Your task to perform on an android device: empty trash in the gmail app Image 0: 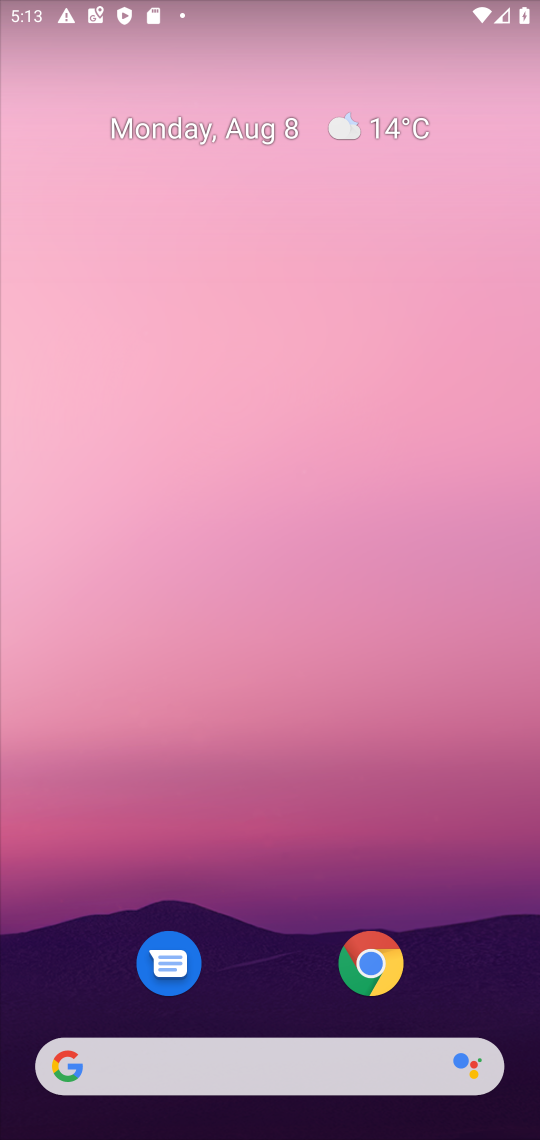
Step 0: drag from (273, 870) to (317, 1)
Your task to perform on an android device: empty trash in the gmail app Image 1: 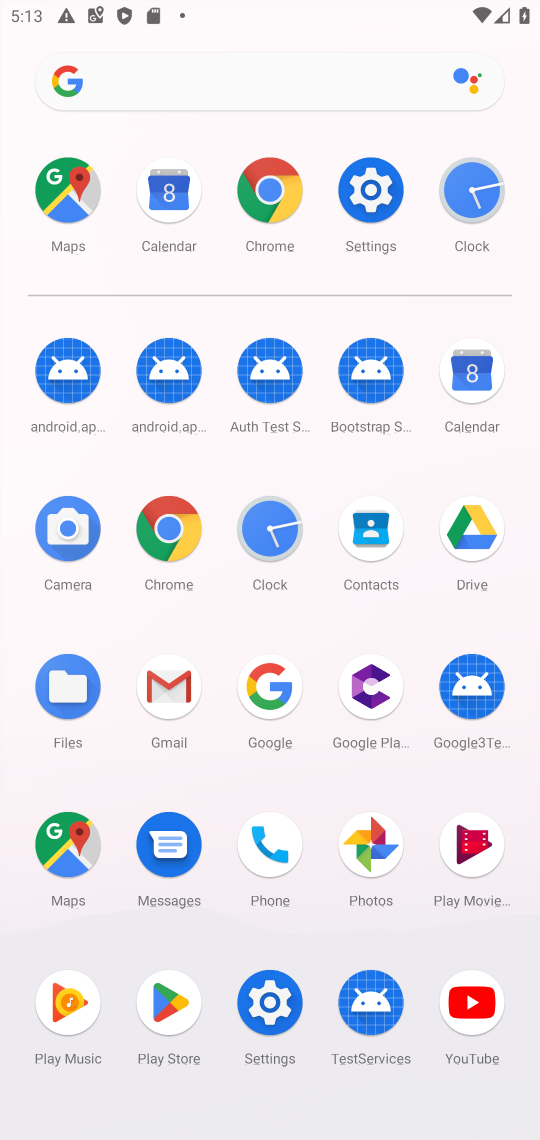
Step 1: click (169, 671)
Your task to perform on an android device: empty trash in the gmail app Image 2: 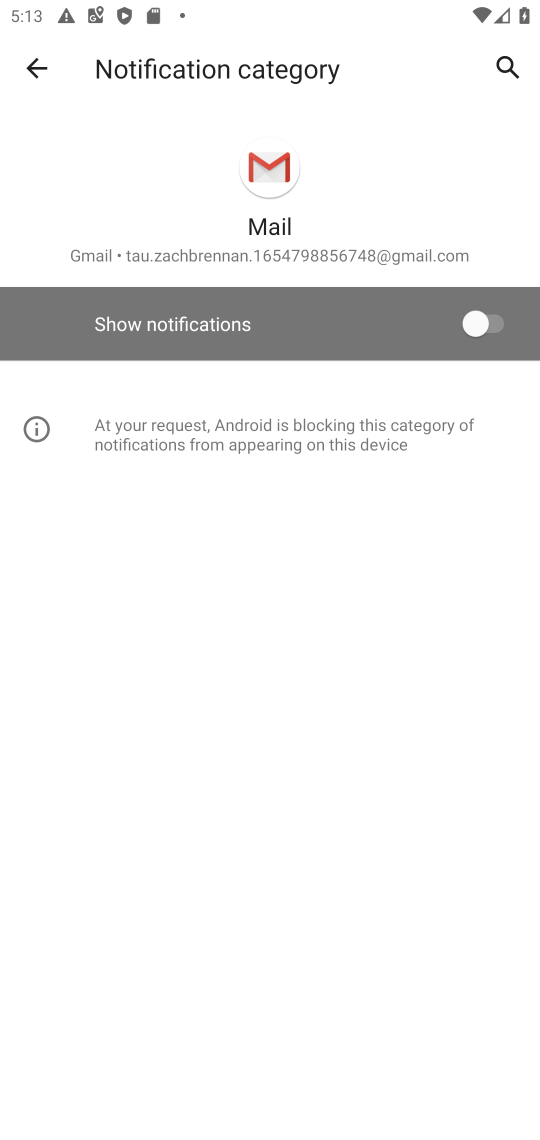
Step 2: click (32, 73)
Your task to perform on an android device: empty trash in the gmail app Image 3: 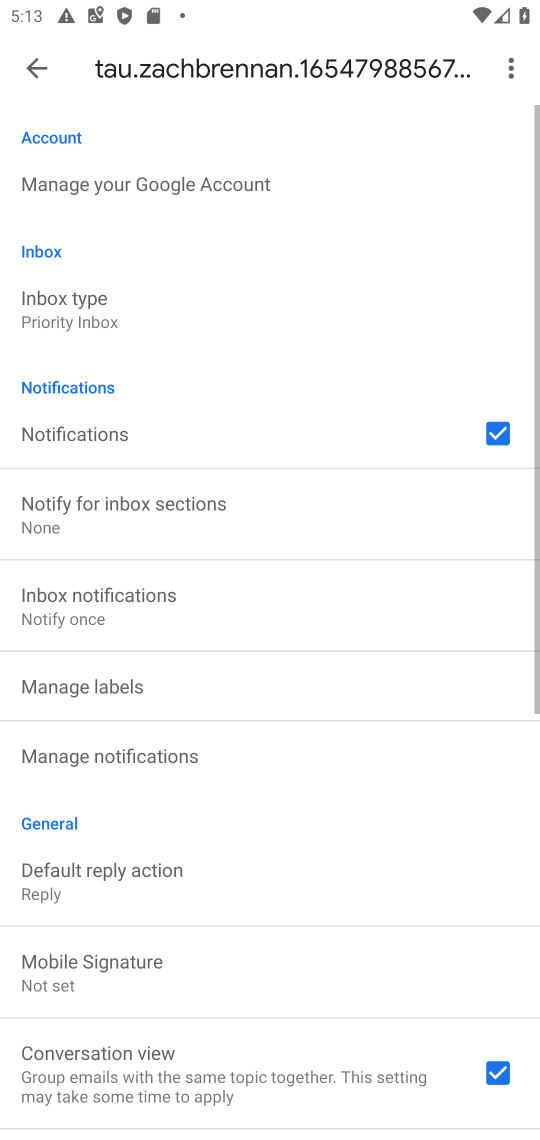
Step 3: click (33, 73)
Your task to perform on an android device: empty trash in the gmail app Image 4: 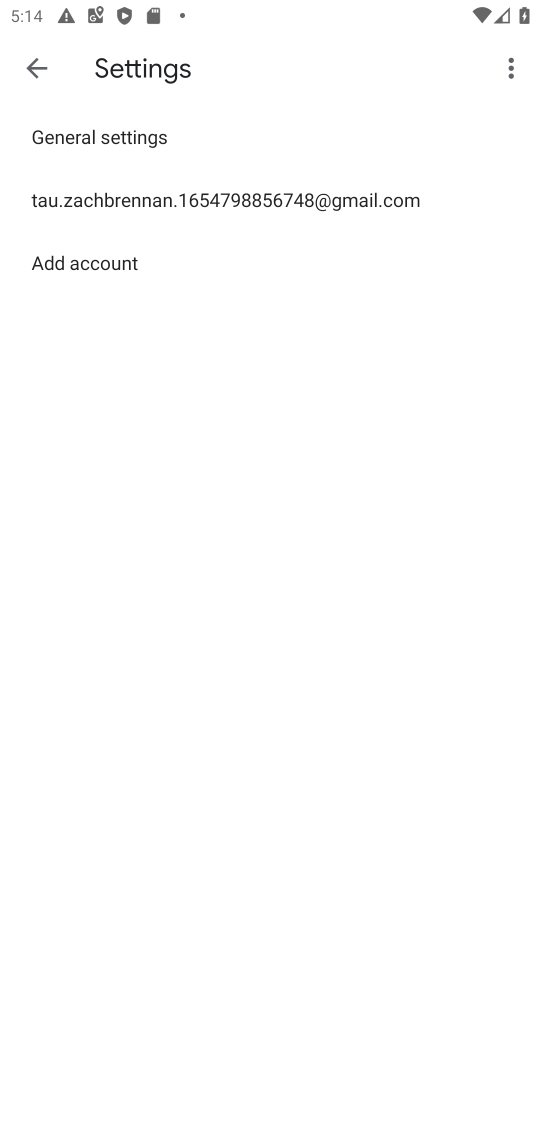
Step 4: click (33, 73)
Your task to perform on an android device: empty trash in the gmail app Image 5: 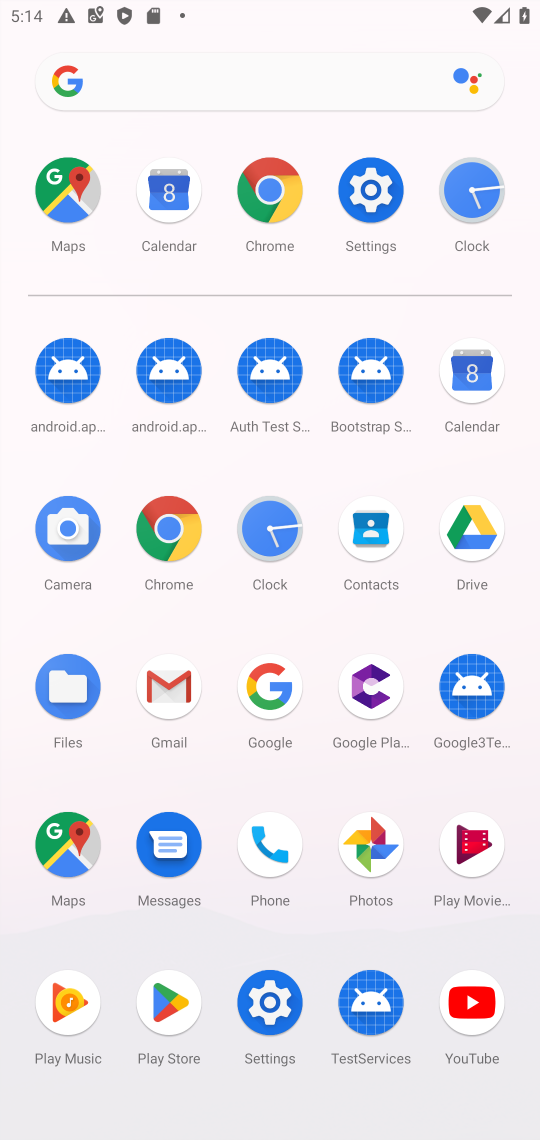
Step 5: click (176, 674)
Your task to perform on an android device: empty trash in the gmail app Image 6: 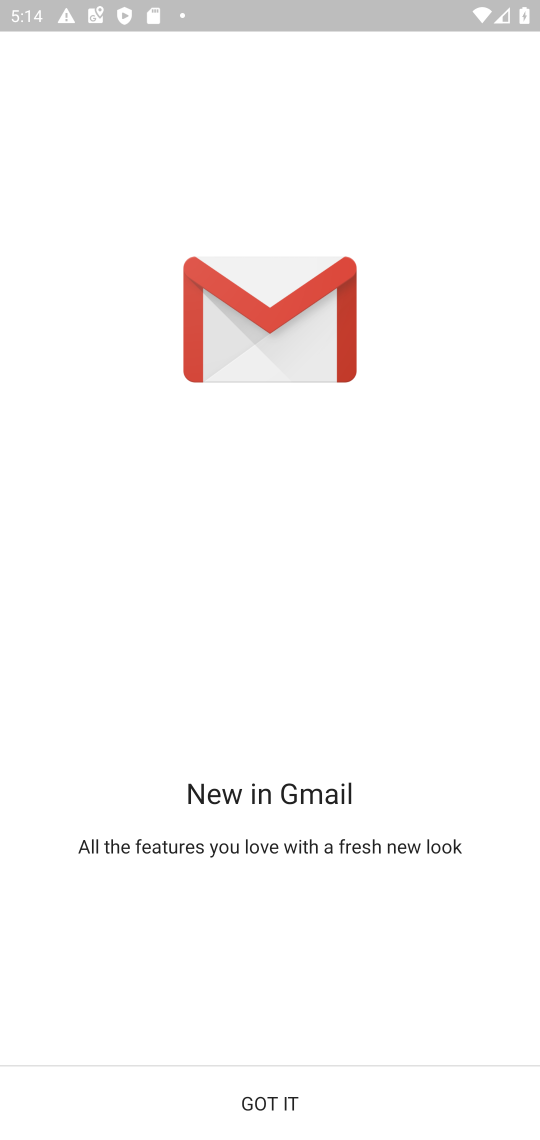
Step 6: click (263, 1119)
Your task to perform on an android device: empty trash in the gmail app Image 7: 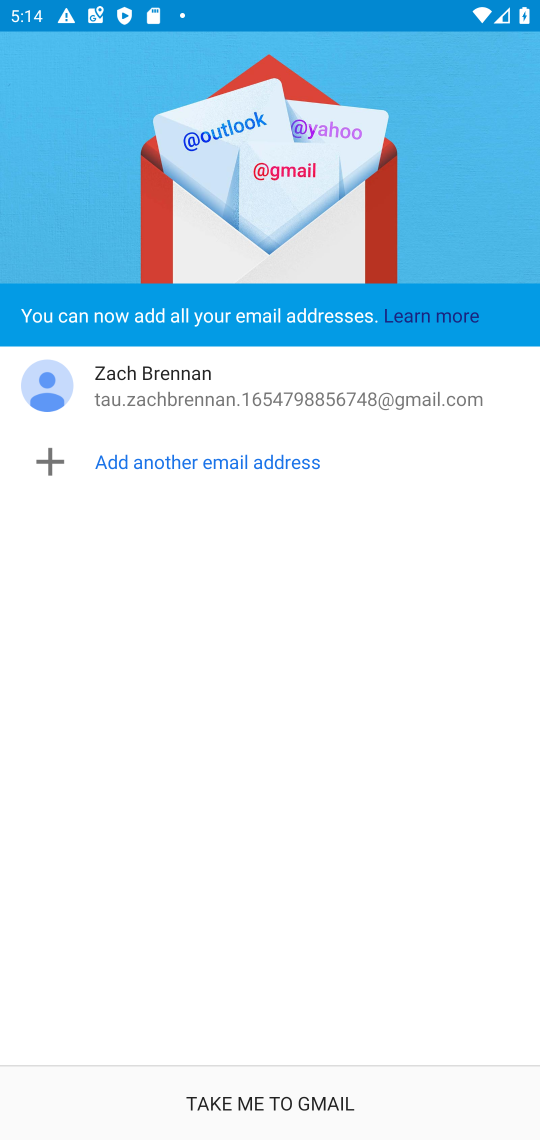
Step 7: click (264, 1113)
Your task to perform on an android device: empty trash in the gmail app Image 8: 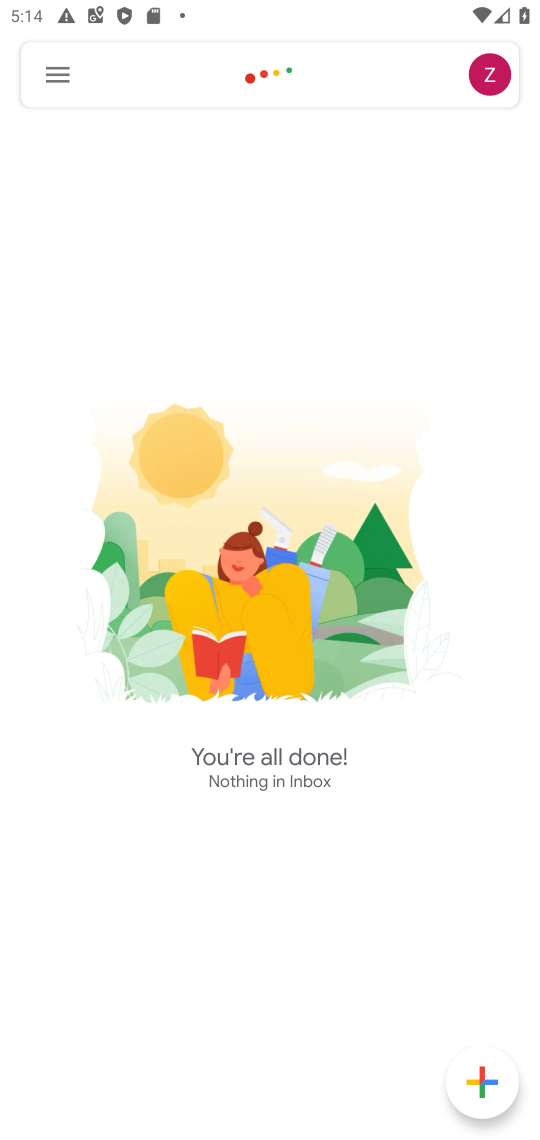
Step 8: click (56, 75)
Your task to perform on an android device: empty trash in the gmail app Image 9: 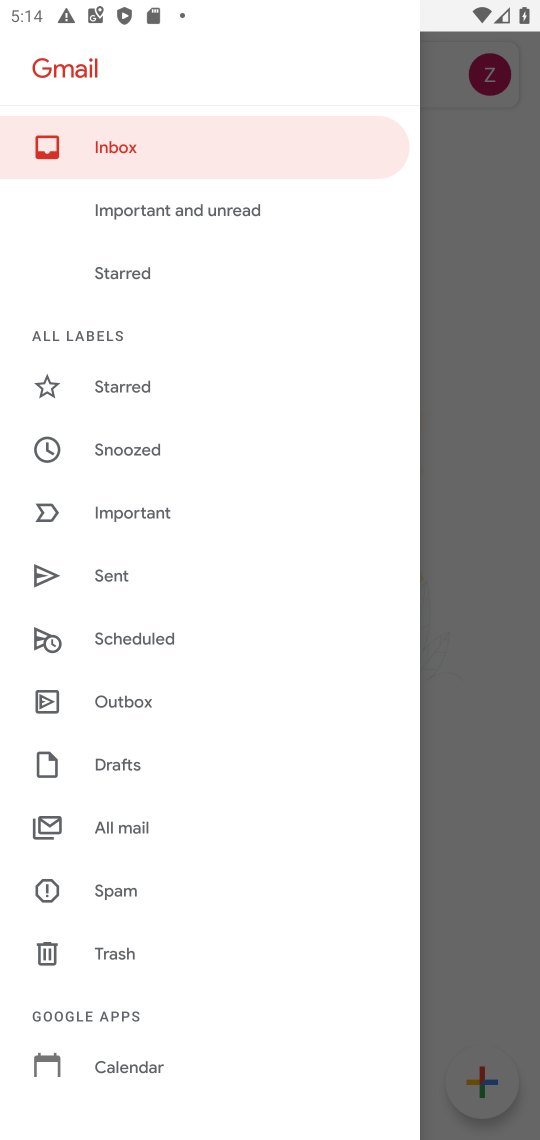
Step 9: click (126, 958)
Your task to perform on an android device: empty trash in the gmail app Image 10: 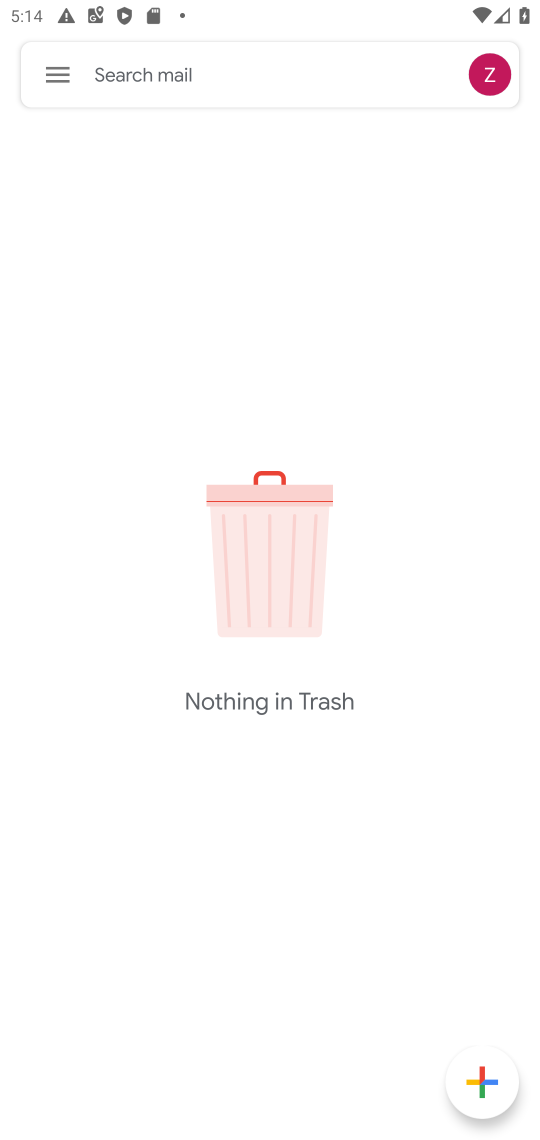
Step 10: task complete